Your task to perform on an android device: Open CNN.com Image 0: 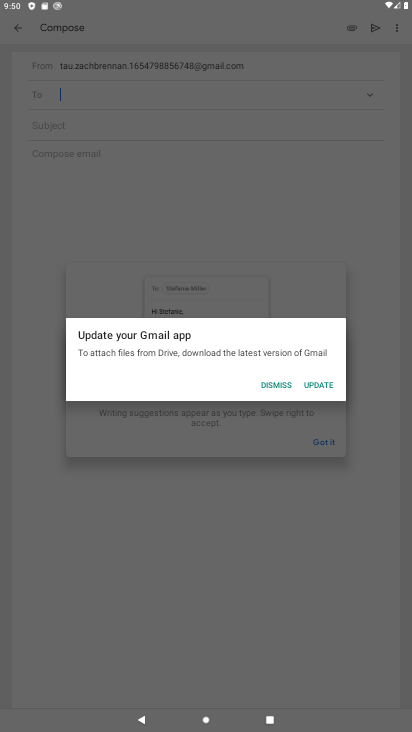
Step 0: press home button
Your task to perform on an android device: Open CNN.com Image 1: 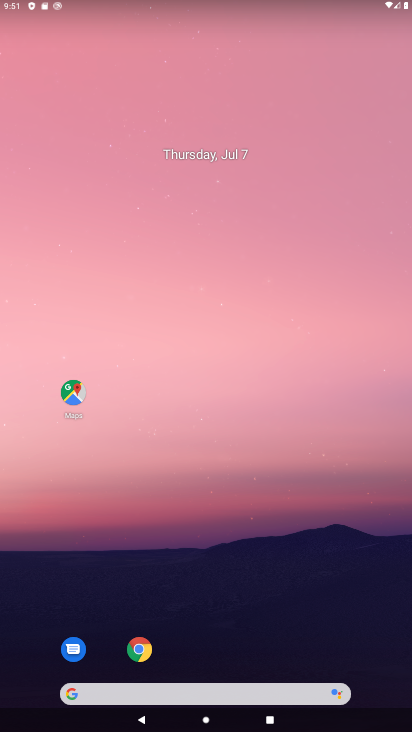
Step 1: click (140, 651)
Your task to perform on an android device: Open CNN.com Image 2: 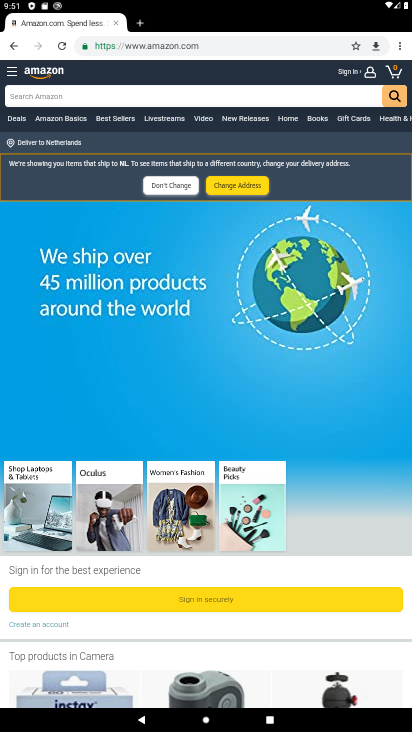
Step 2: click (180, 45)
Your task to perform on an android device: Open CNN.com Image 3: 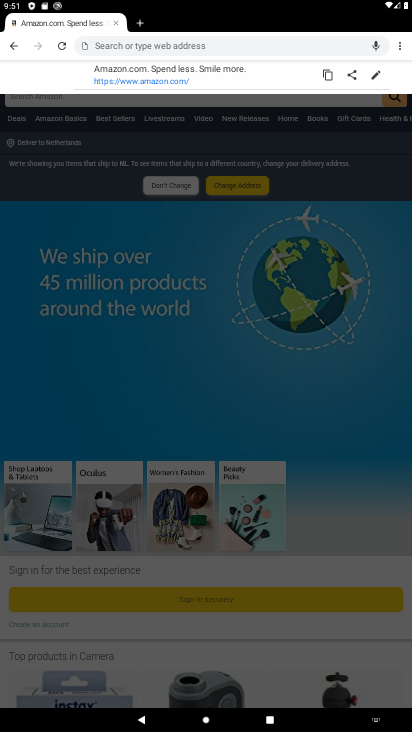
Step 3: type "CNN.com"
Your task to perform on an android device: Open CNN.com Image 4: 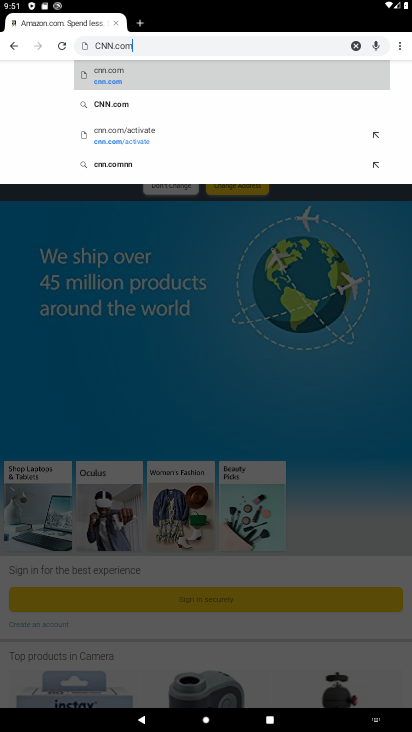
Step 4: click (287, 75)
Your task to perform on an android device: Open CNN.com Image 5: 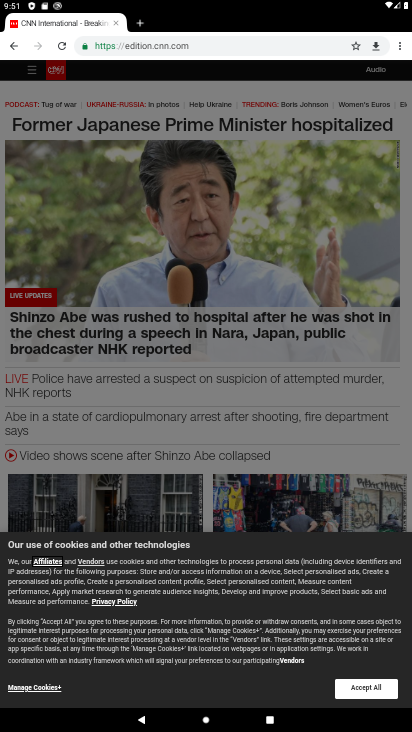
Step 5: task complete